Your task to perform on an android device: turn off location Image 0: 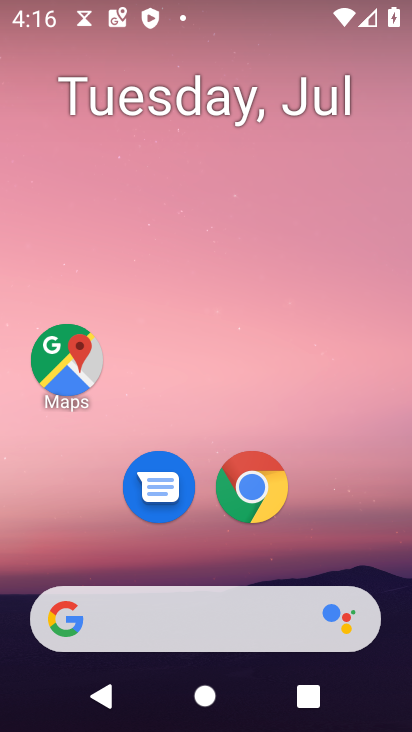
Step 0: drag from (169, 362) to (212, 7)
Your task to perform on an android device: turn off location Image 1: 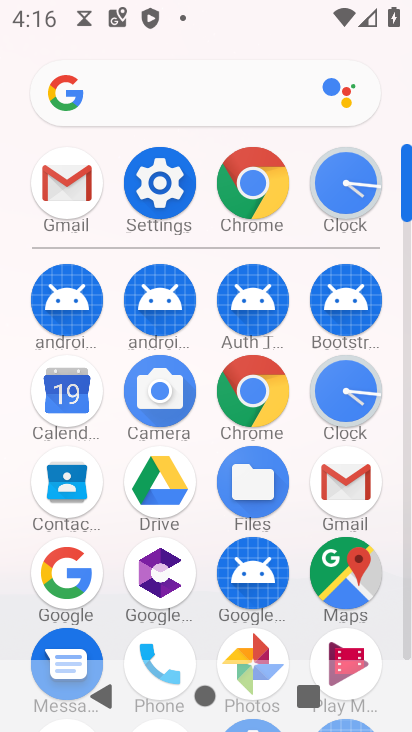
Step 1: click (163, 182)
Your task to perform on an android device: turn off location Image 2: 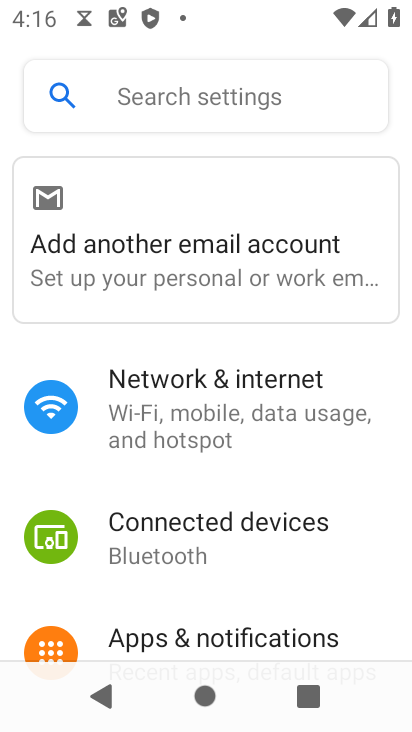
Step 2: drag from (168, 569) to (229, 22)
Your task to perform on an android device: turn off location Image 3: 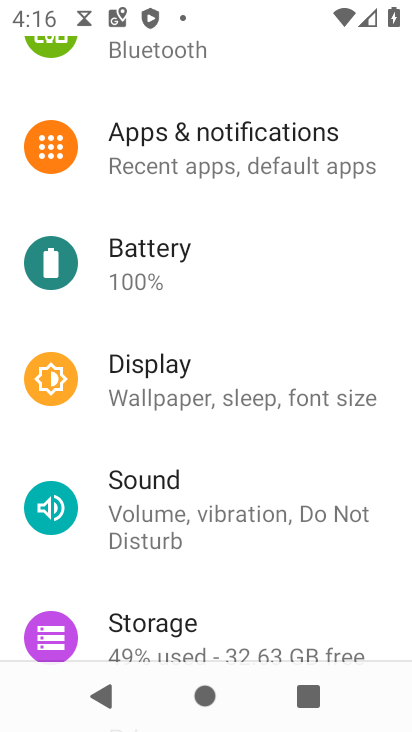
Step 3: drag from (178, 568) to (270, 85)
Your task to perform on an android device: turn off location Image 4: 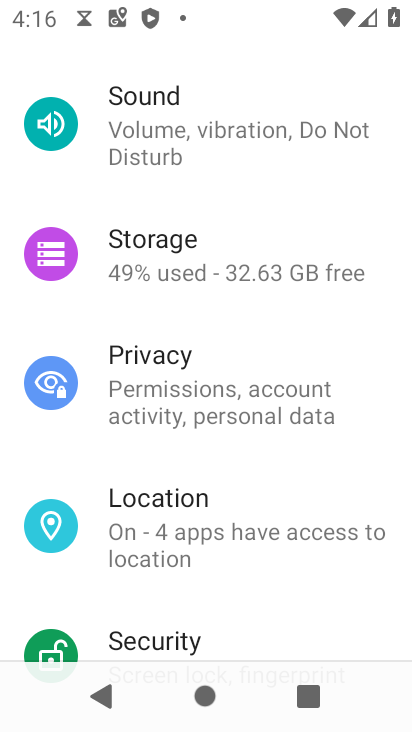
Step 4: click (164, 520)
Your task to perform on an android device: turn off location Image 5: 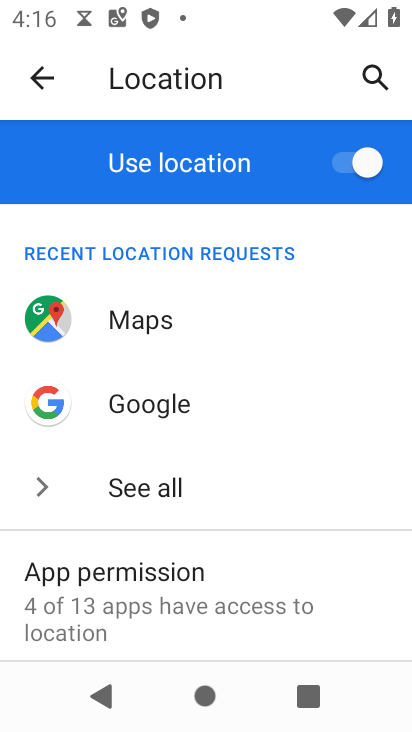
Step 5: click (357, 169)
Your task to perform on an android device: turn off location Image 6: 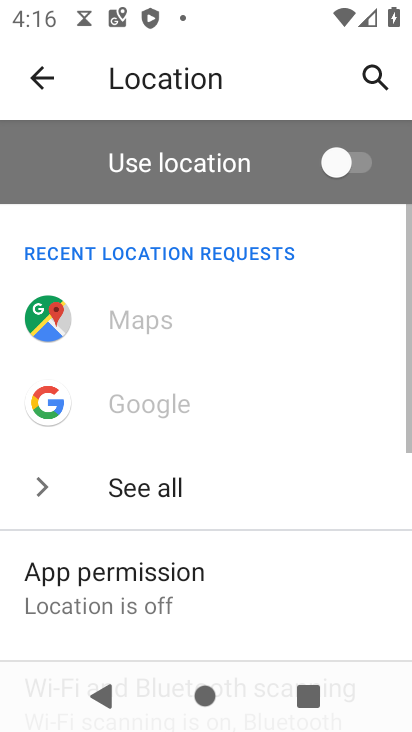
Step 6: task complete